Your task to perform on an android device: open device folders in google photos Image 0: 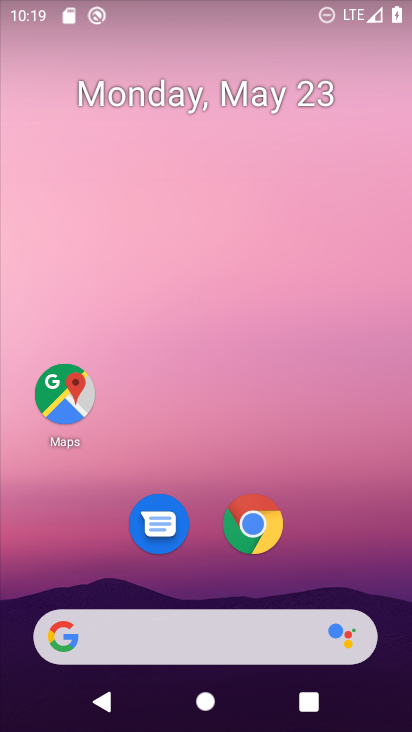
Step 0: drag from (228, 443) to (233, 65)
Your task to perform on an android device: open device folders in google photos Image 1: 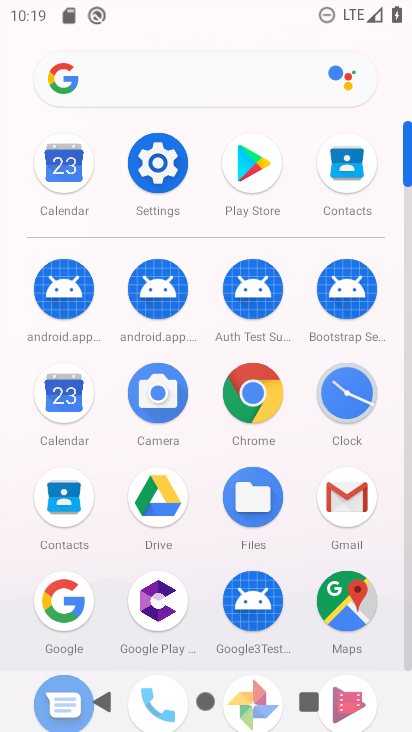
Step 1: drag from (199, 419) to (216, 94)
Your task to perform on an android device: open device folders in google photos Image 2: 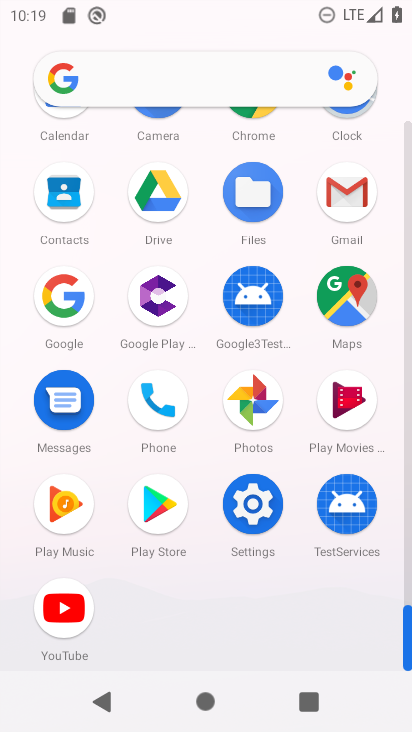
Step 2: click (240, 397)
Your task to perform on an android device: open device folders in google photos Image 3: 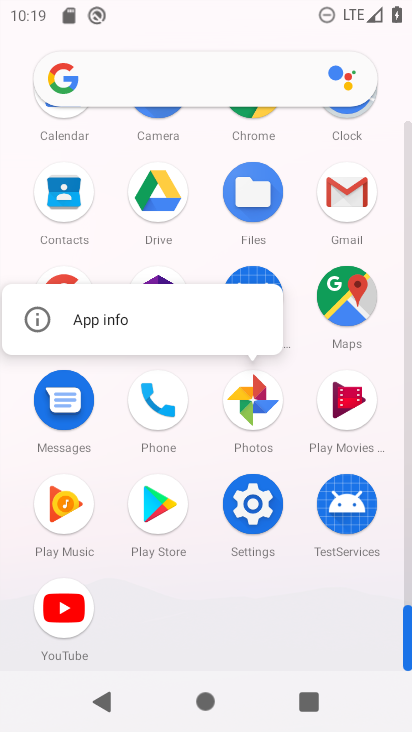
Step 3: click (259, 393)
Your task to perform on an android device: open device folders in google photos Image 4: 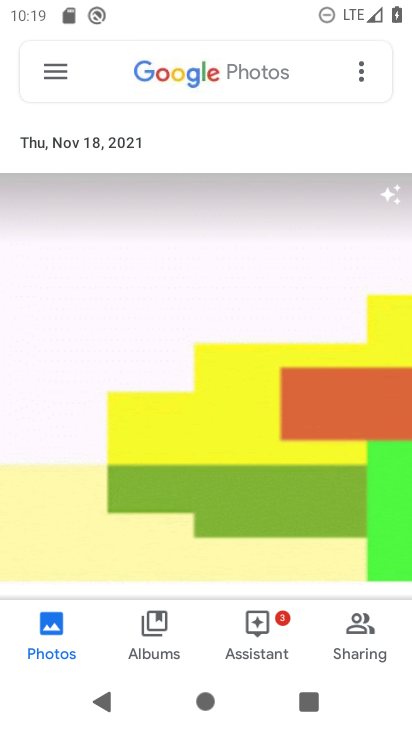
Step 4: click (60, 74)
Your task to perform on an android device: open device folders in google photos Image 5: 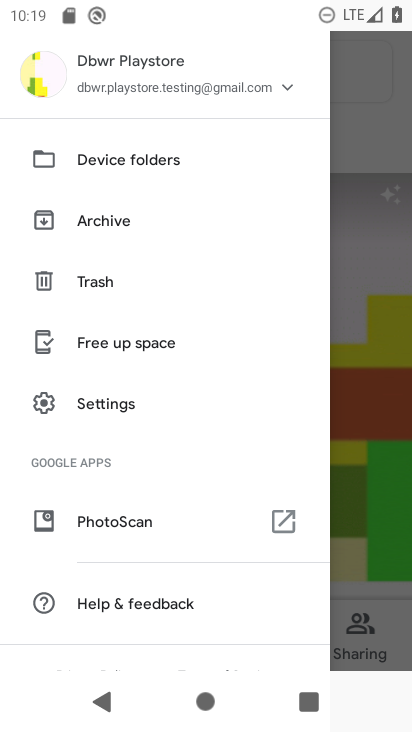
Step 5: click (112, 155)
Your task to perform on an android device: open device folders in google photos Image 6: 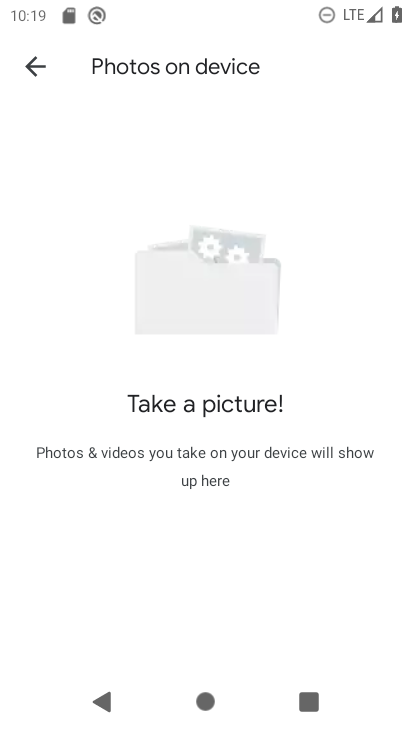
Step 6: task complete